Your task to perform on an android device: open chrome and create a bookmark for the current page Image 0: 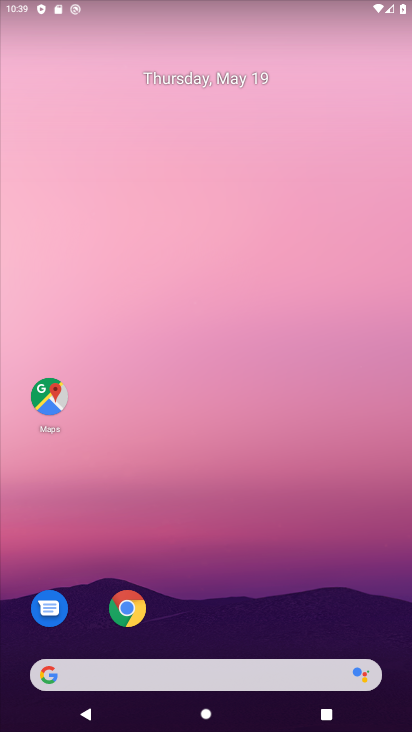
Step 0: click (123, 619)
Your task to perform on an android device: open chrome and create a bookmark for the current page Image 1: 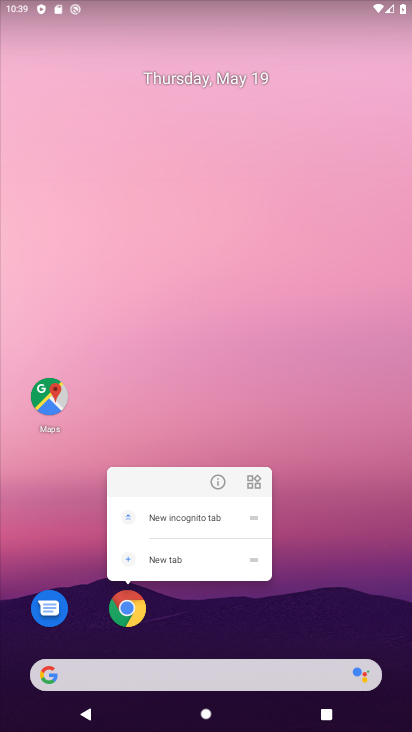
Step 1: click (130, 600)
Your task to perform on an android device: open chrome and create a bookmark for the current page Image 2: 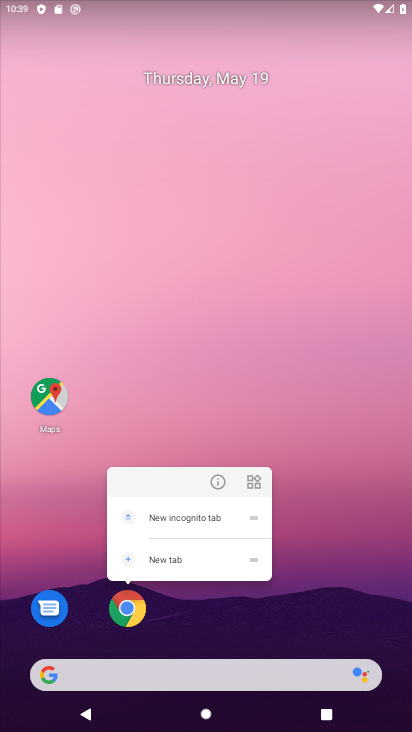
Step 2: click (130, 600)
Your task to perform on an android device: open chrome and create a bookmark for the current page Image 3: 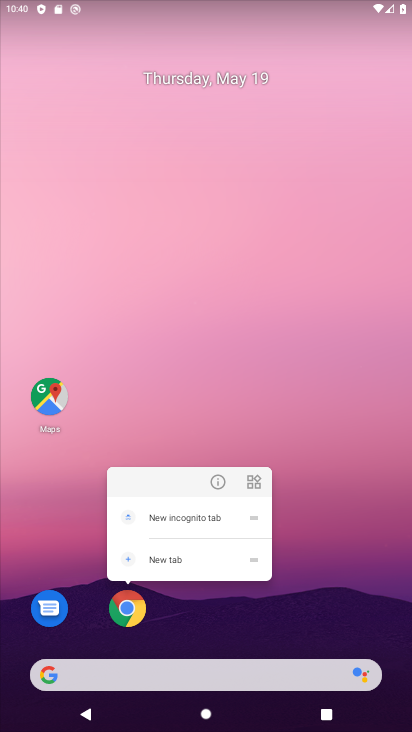
Step 3: click (130, 600)
Your task to perform on an android device: open chrome and create a bookmark for the current page Image 4: 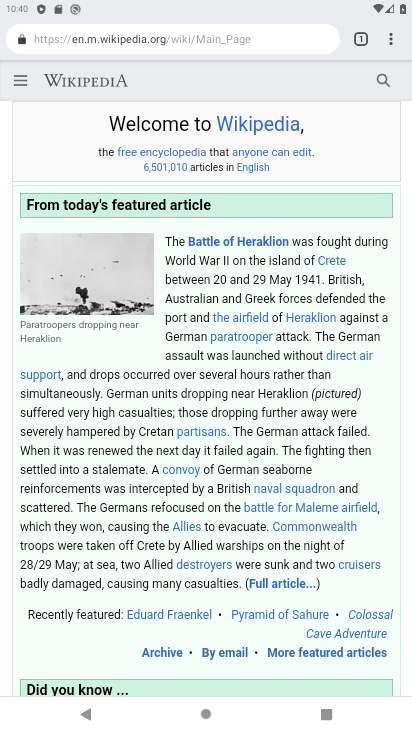
Step 4: click (390, 34)
Your task to perform on an android device: open chrome and create a bookmark for the current page Image 5: 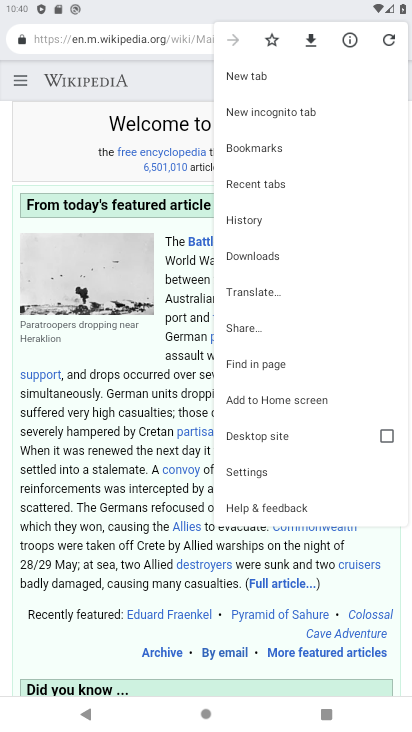
Step 5: click (275, 35)
Your task to perform on an android device: open chrome and create a bookmark for the current page Image 6: 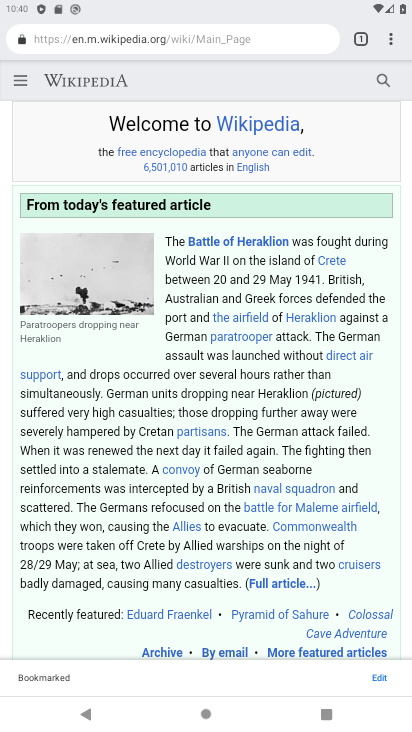
Step 6: task complete